Your task to perform on an android device: open app "Duolingo: language lessons" (install if not already installed) Image 0: 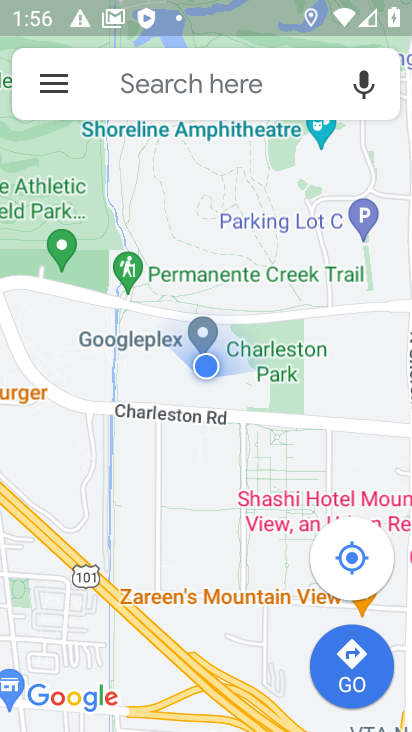
Step 0: press home button
Your task to perform on an android device: open app "Duolingo: language lessons" (install if not already installed) Image 1: 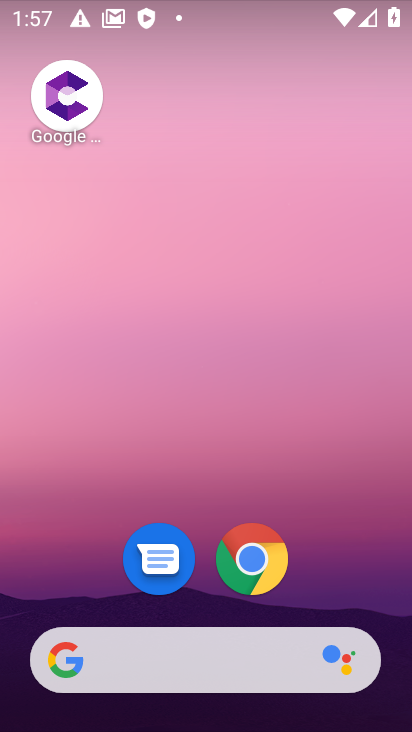
Step 1: drag from (335, 580) to (357, 40)
Your task to perform on an android device: open app "Duolingo: language lessons" (install if not already installed) Image 2: 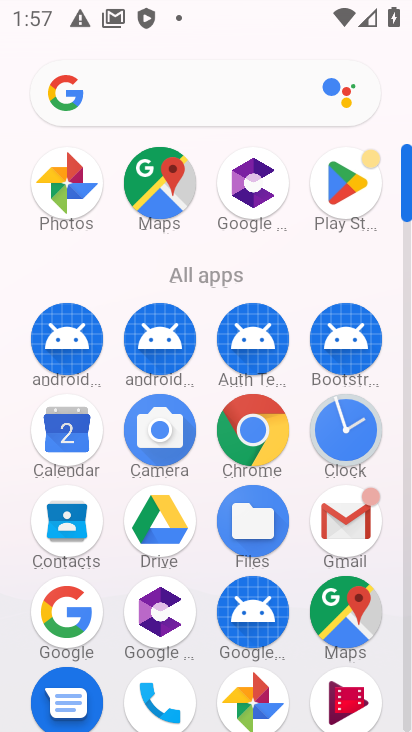
Step 2: drag from (337, 189) to (210, 332)
Your task to perform on an android device: open app "Duolingo: language lessons" (install if not already installed) Image 3: 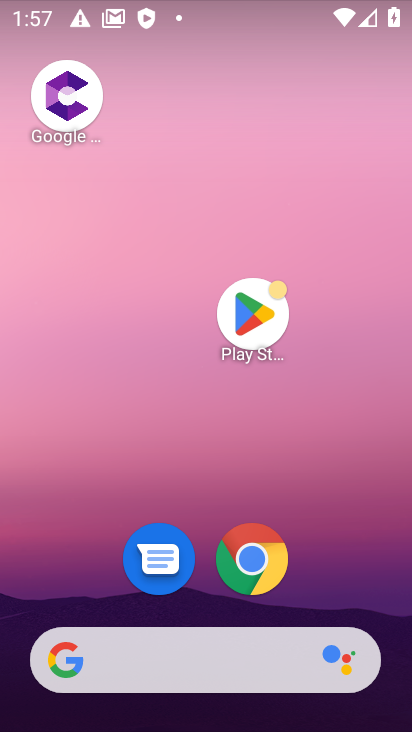
Step 3: click (247, 309)
Your task to perform on an android device: open app "Duolingo: language lessons" (install if not already installed) Image 4: 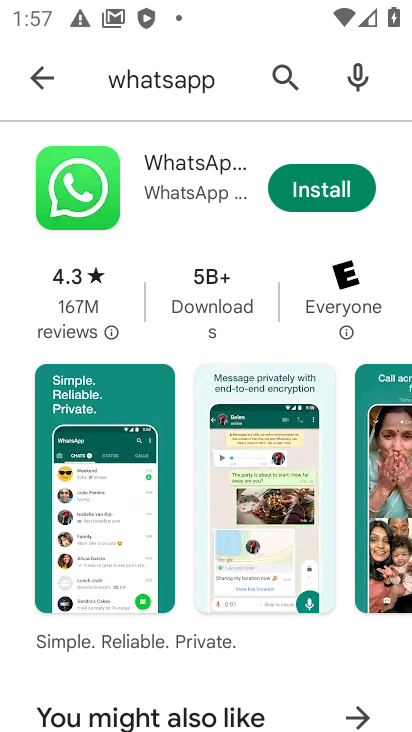
Step 4: press home button
Your task to perform on an android device: open app "Duolingo: language lessons" (install if not already installed) Image 5: 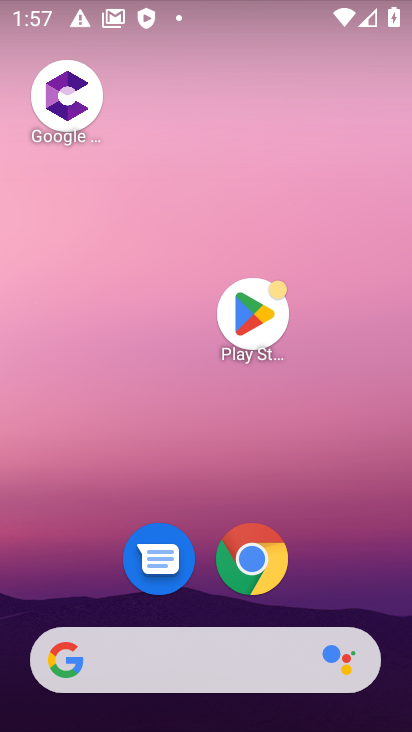
Step 5: click (259, 329)
Your task to perform on an android device: open app "Duolingo: language lessons" (install if not already installed) Image 6: 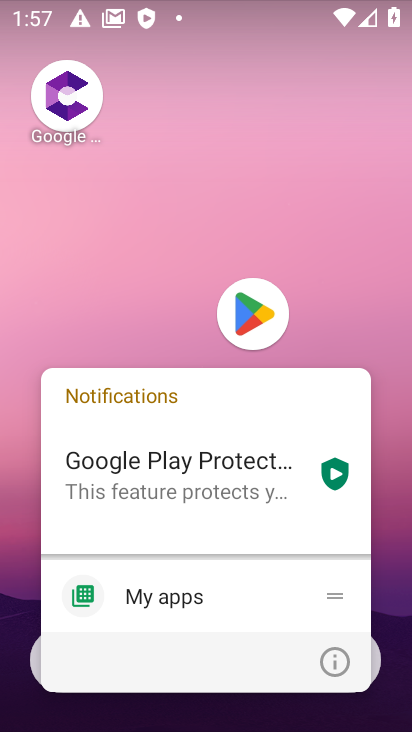
Step 6: click (258, 329)
Your task to perform on an android device: open app "Duolingo: language lessons" (install if not already installed) Image 7: 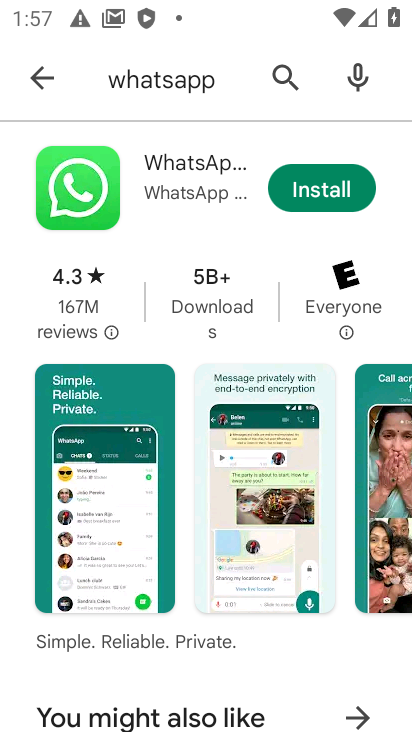
Step 7: click (50, 83)
Your task to perform on an android device: open app "Duolingo: language lessons" (install if not already installed) Image 8: 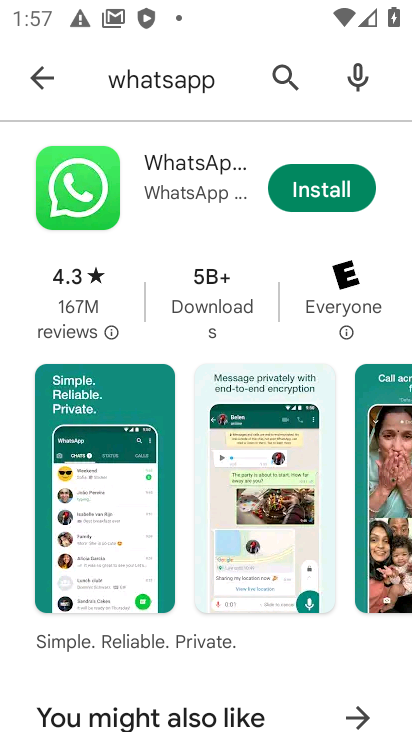
Step 8: click (280, 75)
Your task to perform on an android device: open app "Duolingo: language lessons" (install if not already installed) Image 9: 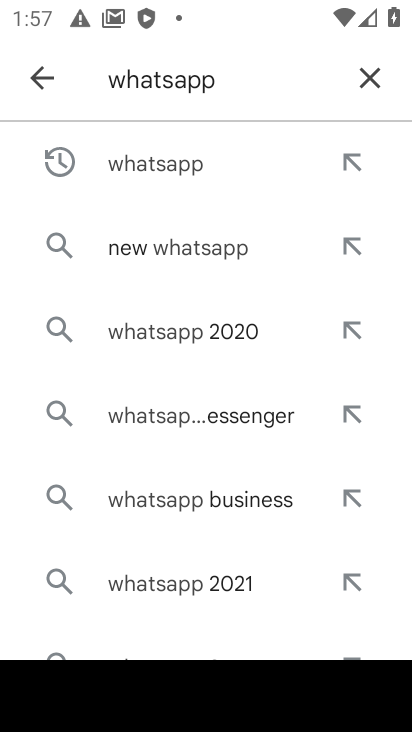
Step 9: click (383, 74)
Your task to perform on an android device: open app "Duolingo: language lessons" (install if not already installed) Image 10: 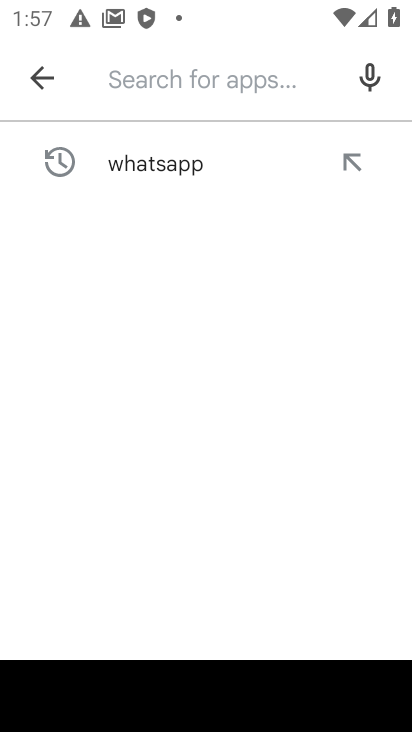
Step 10: type "duolingo"
Your task to perform on an android device: open app "Duolingo: language lessons" (install if not already installed) Image 11: 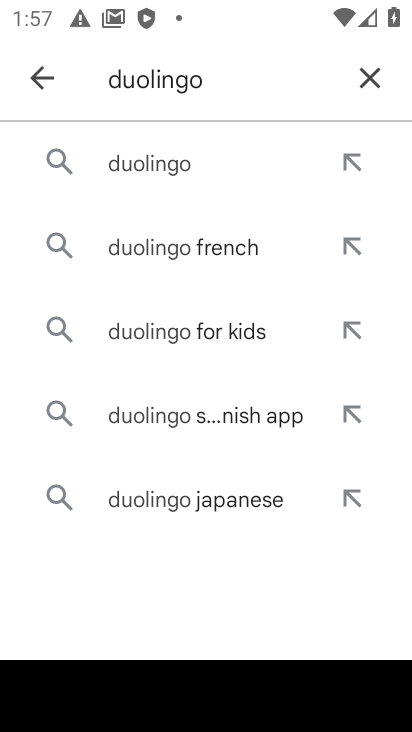
Step 11: type "language"
Your task to perform on an android device: open app "Duolingo: language lessons" (install if not already installed) Image 12: 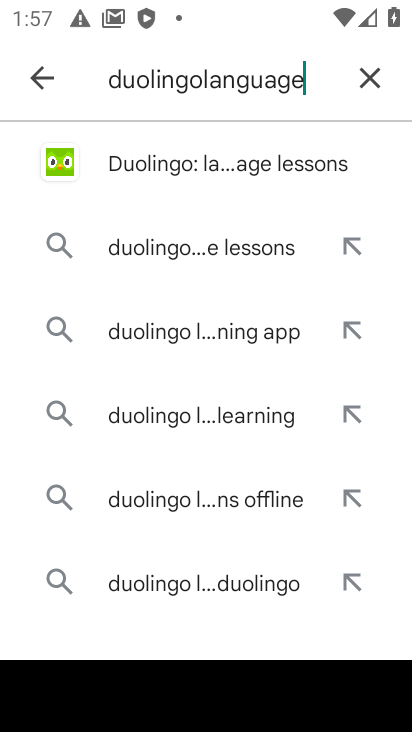
Step 12: click (241, 160)
Your task to perform on an android device: open app "Duolingo: language lessons" (install if not already installed) Image 13: 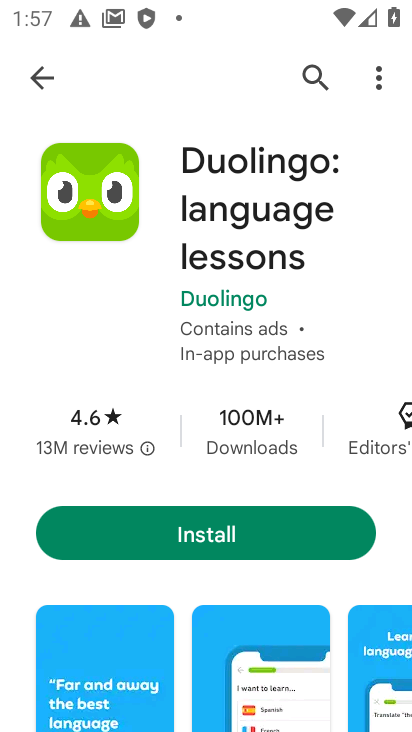
Step 13: click (190, 530)
Your task to perform on an android device: open app "Duolingo: language lessons" (install if not already installed) Image 14: 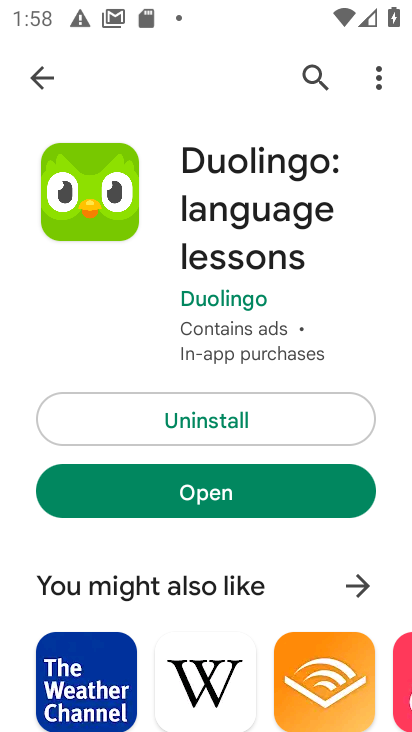
Step 14: task complete